Your task to perform on an android device: What is the recent news? Image 0: 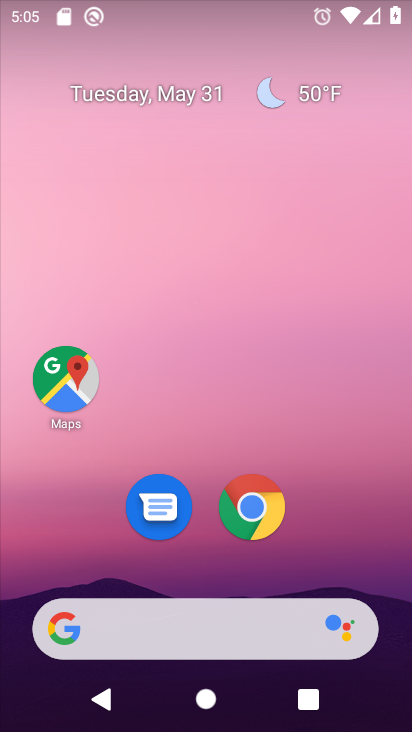
Step 0: click (260, 618)
Your task to perform on an android device: What is the recent news? Image 1: 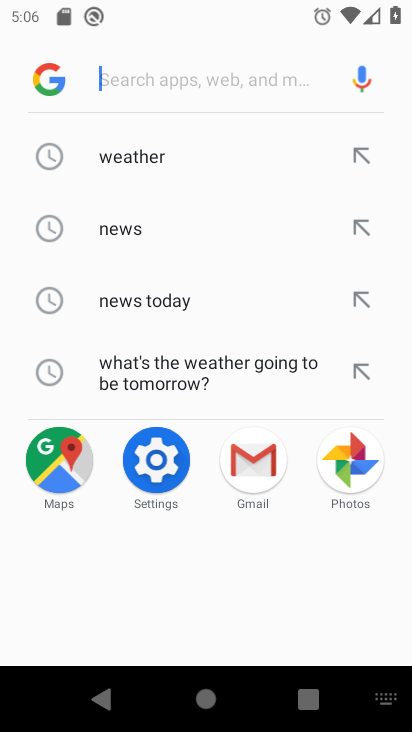
Step 1: click (97, 230)
Your task to perform on an android device: What is the recent news? Image 2: 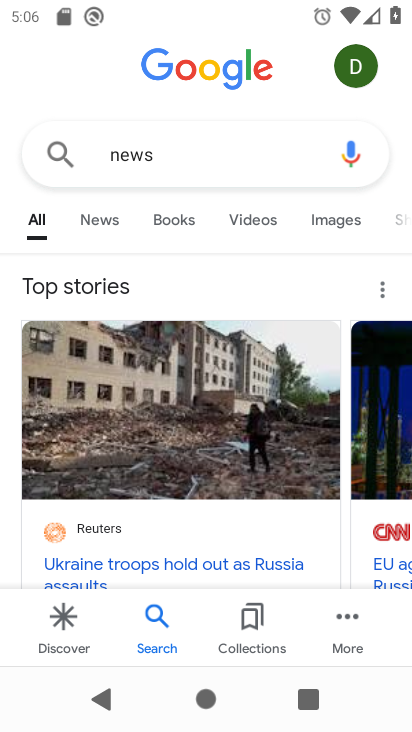
Step 2: click (101, 212)
Your task to perform on an android device: What is the recent news? Image 3: 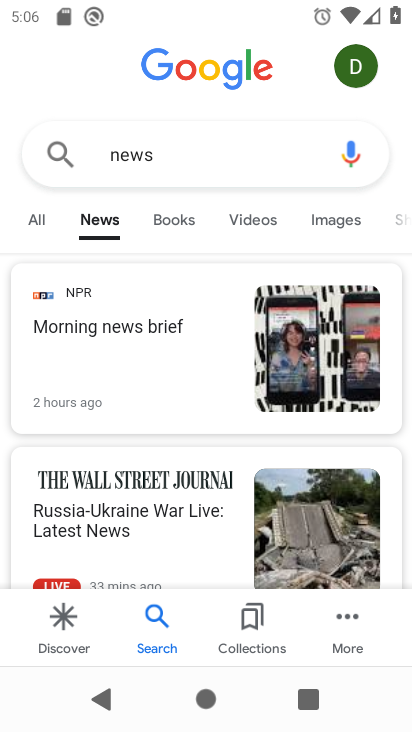
Step 3: task complete